Your task to perform on an android device: When is my next appointment? Image 0: 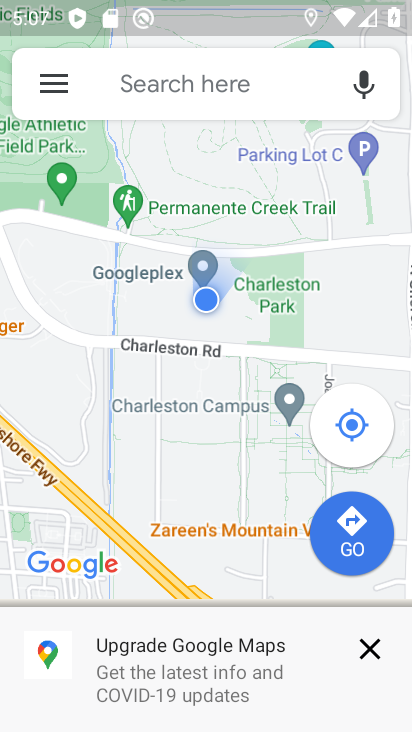
Step 0: press home button
Your task to perform on an android device: When is my next appointment? Image 1: 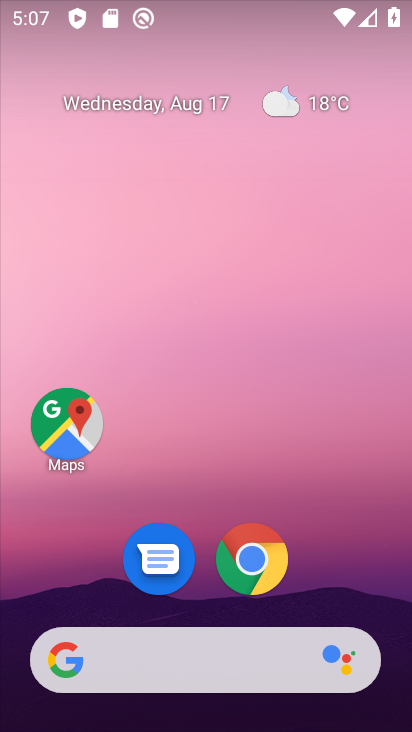
Step 1: drag from (173, 646) to (155, 197)
Your task to perform on an android device: When is my next appointment? Image 2: 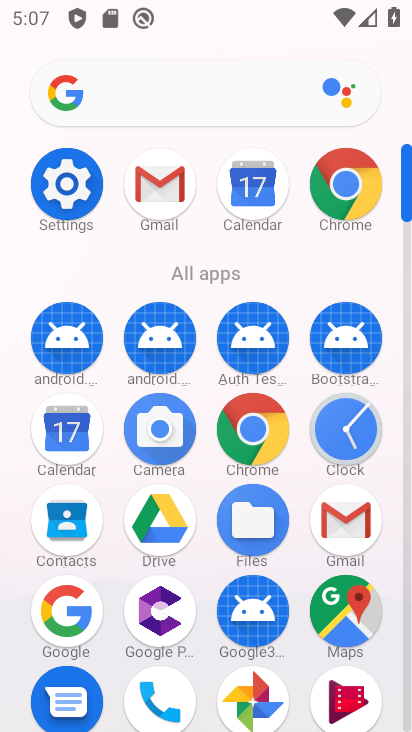
Step 2: click (72, 419)
Your task to perform on an android device: When is my next appointment? Image 3: 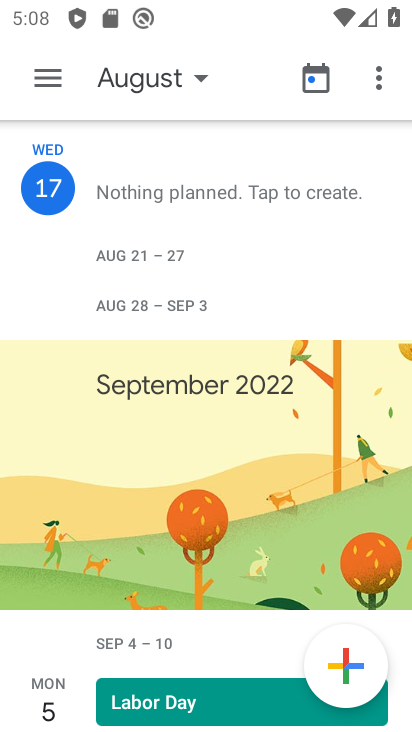
Step 3: click (36, 85)
Your task to perform on an android device: When is my next appointment? Image 4: 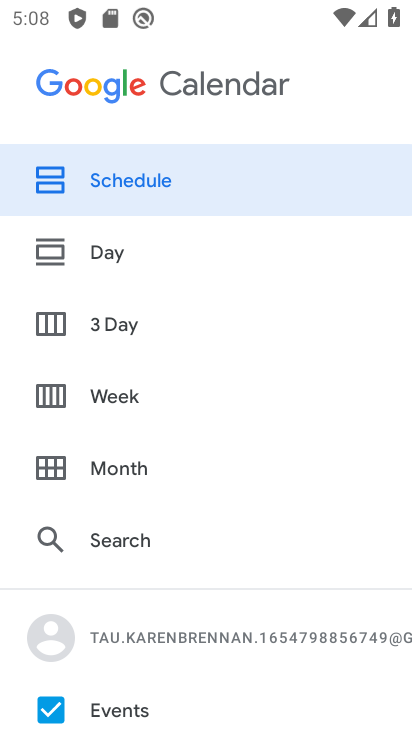
Step 4: click (75, 175)
Your task to perform on an android device: When is my next appointment? Image 5: 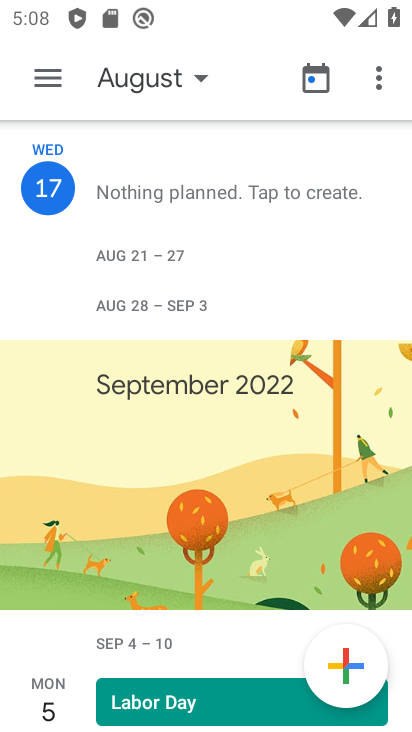
Step 5: task complete